Your task to perform on an android device: Go to display settings Image 0: 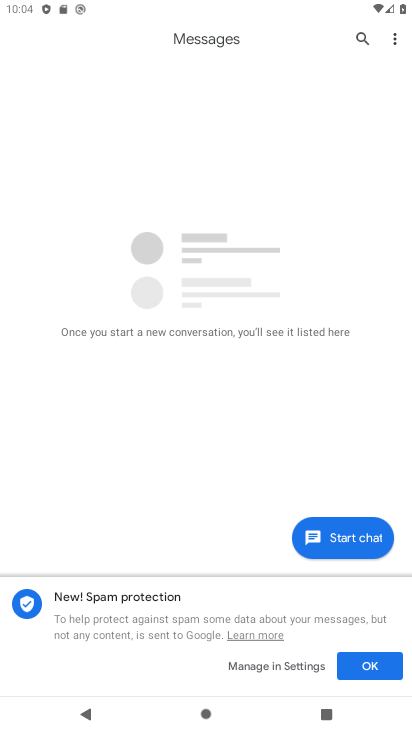
Step 0: press home button
Your task to perform on an android device: Go to display settings Image 1: 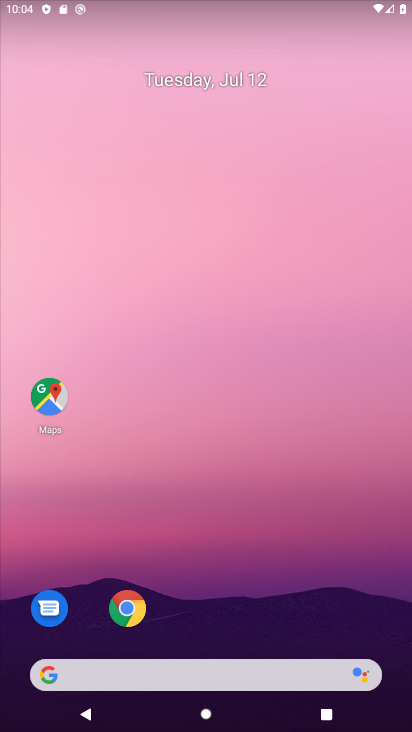
Step 1: drag from (235, 627) to (382, 53)
Your task to perform on an android device: Go to display settings Image 2: 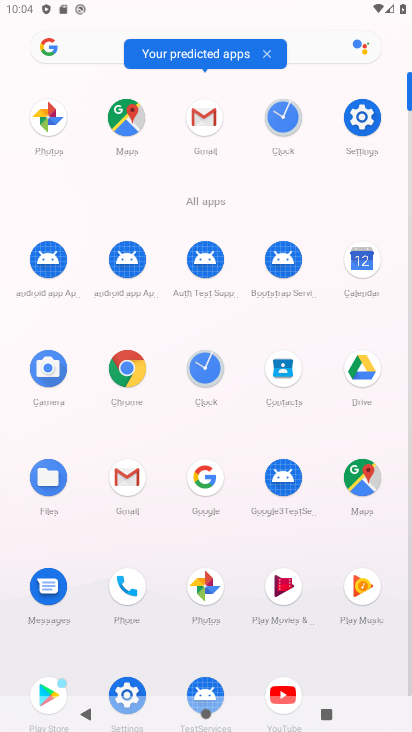
Step 2: click (364, 123)
Your task to perform on an android device: Go to display settings Image 3: 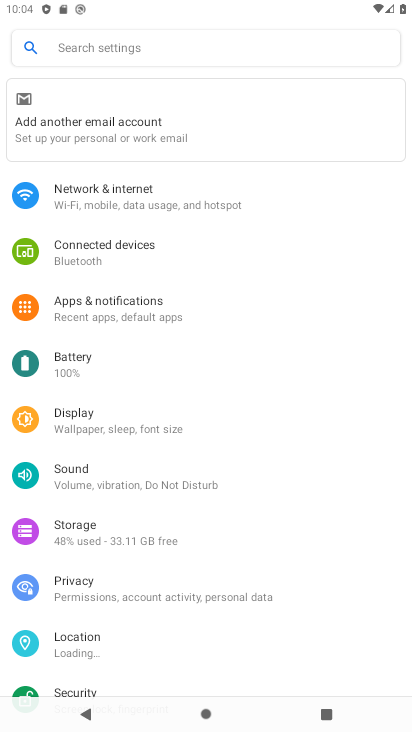
Step 3: click (95, 415)
Your task to perform on an android device: Go to display settings Image 4: 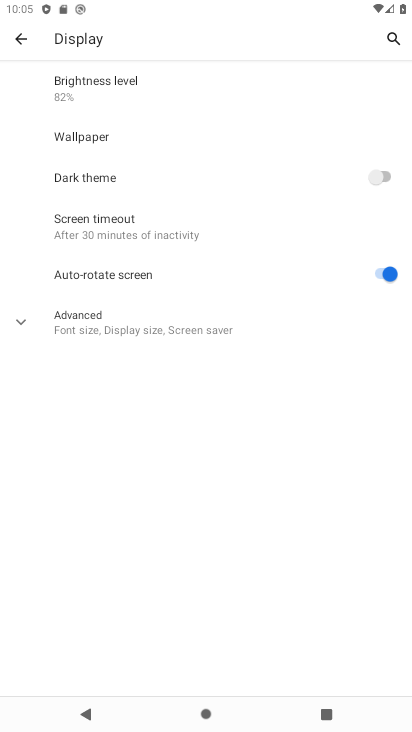
Step 4: task complete